Your task to perform on an android device: turn on the 12-hour format for clock Image 0: 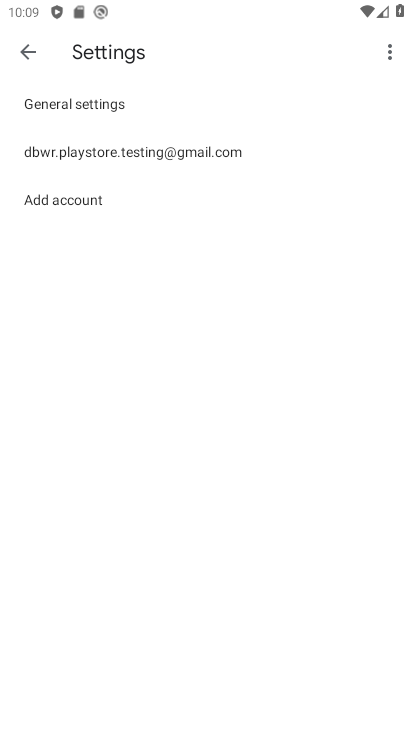
Step 0: press home button
Your task to perform on an android device: turn on the 12-hour format for clock Image 1: 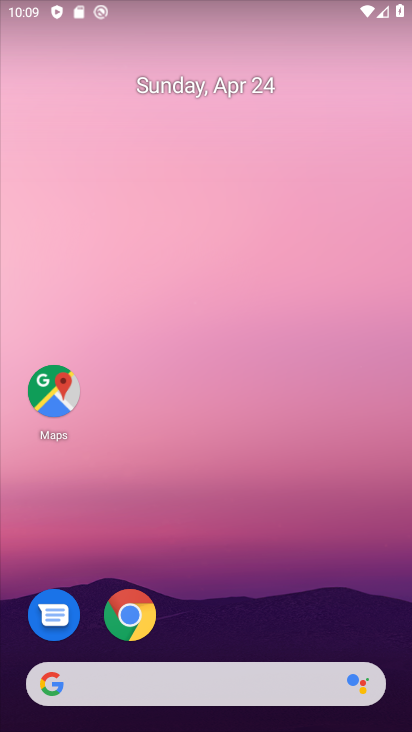
Step 1: drag from (221, 629) to (225, 0)
Your task to perform on an android device: turn on the 12-hour format for clock Image 2: 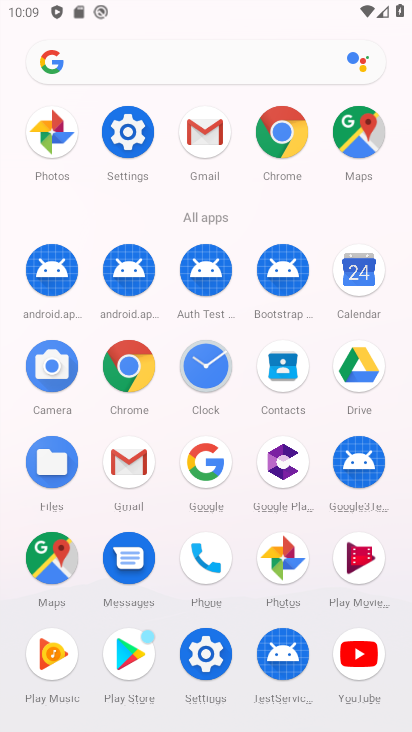
Step 2: click (208, 364)
Your task to perform on an android device: turn on the 12-hour format for clock Image 3: 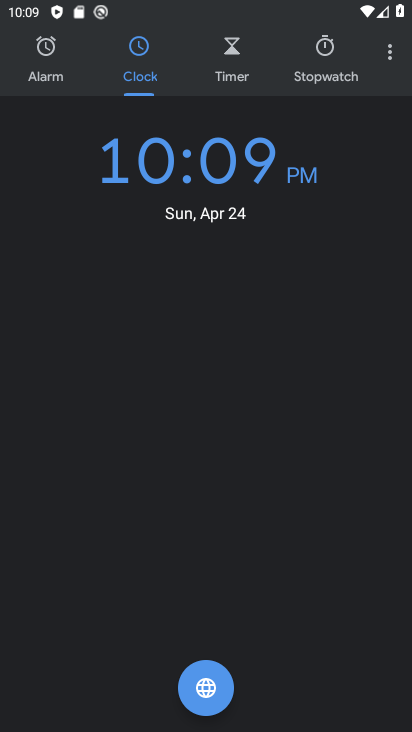
Step 3: click (389, 47)
Your task to perform on an android device: turn on the 12-hour format for clock Image 4: 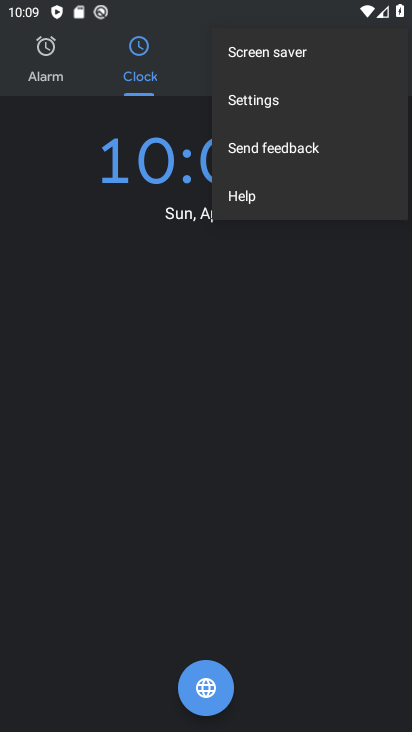
Step 4: click (295, 91)
Your task to perform on an android device: turn on the 12-hour format for clock Image 5: 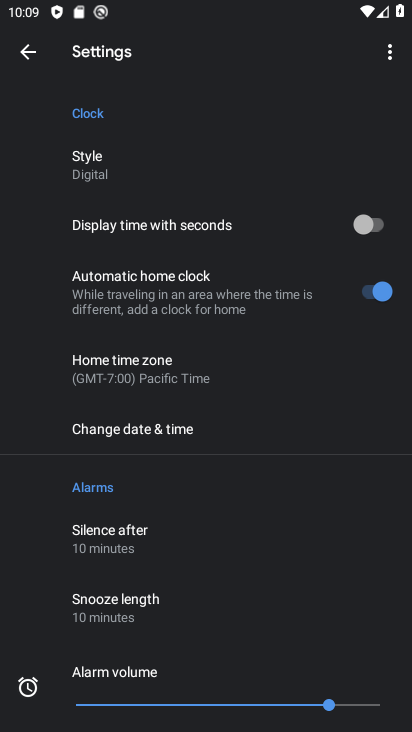
Step 5: click (189, 419)
Your task to perform on an android device: turn on the 12-hour format for clock Image 6: 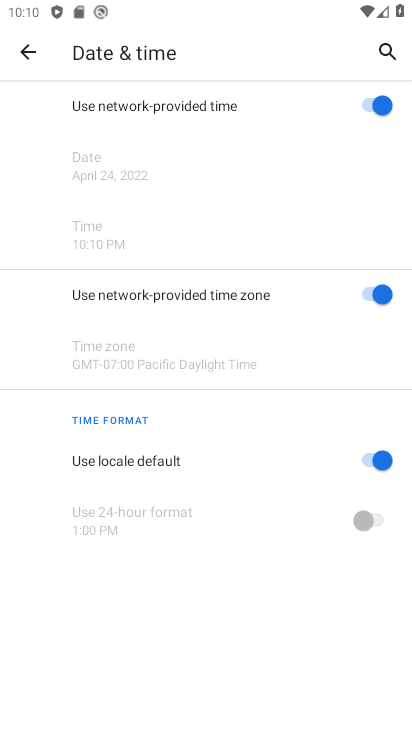
Step 6: task complete